Your task to perform on an android device: check data usage Image 0: 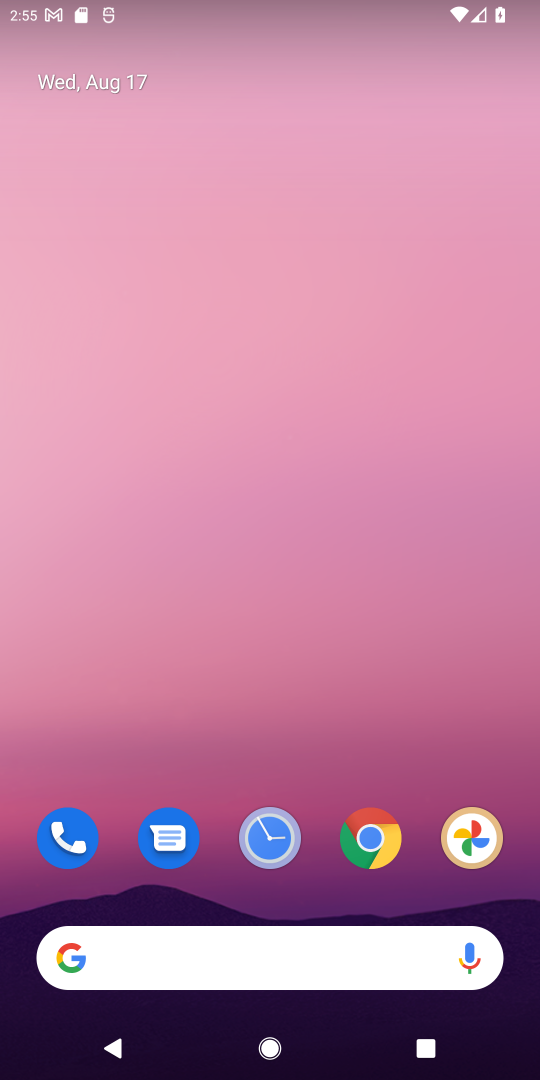
Step 0: drag from (252, 924) to (215, 648)
Your task to perform on an android device: check data usage Image 1: 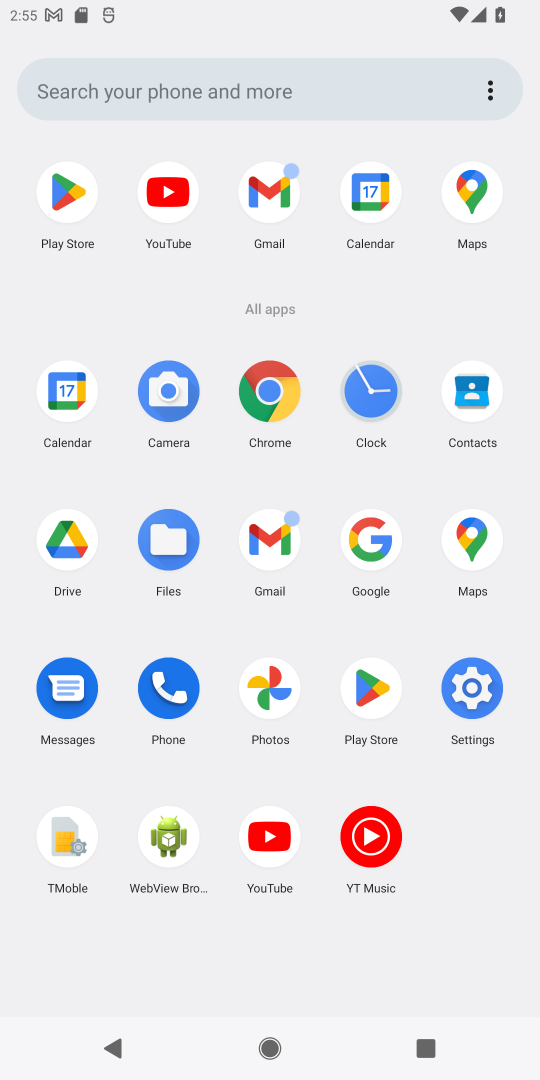
Step 1: click (466, 702)
Your task to perform on an android device: check data usage Image 2: 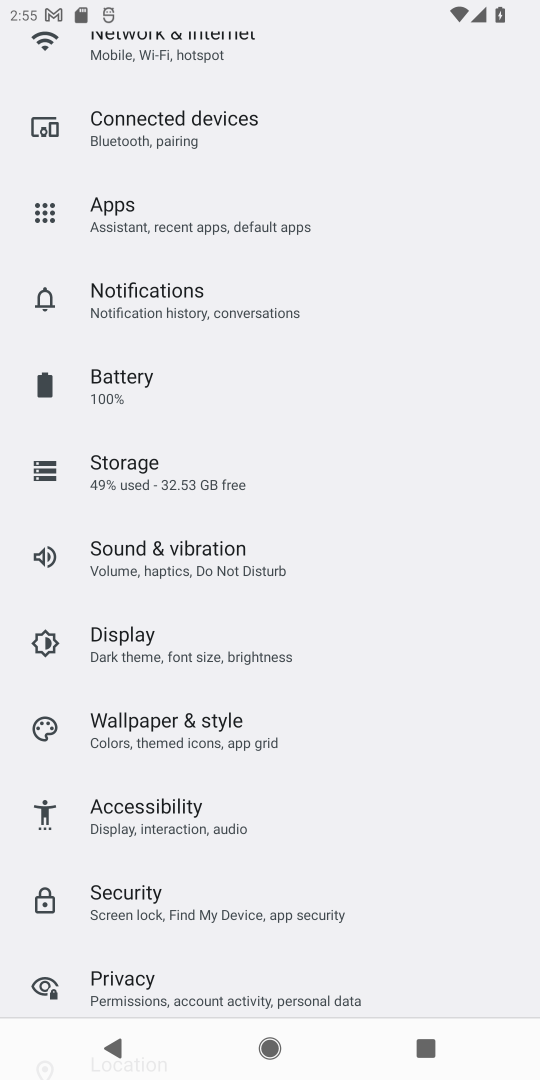
Step 2: drag from (117, 101) to (284, 518)
Your task to perform on an android device: check data usage Image 3: 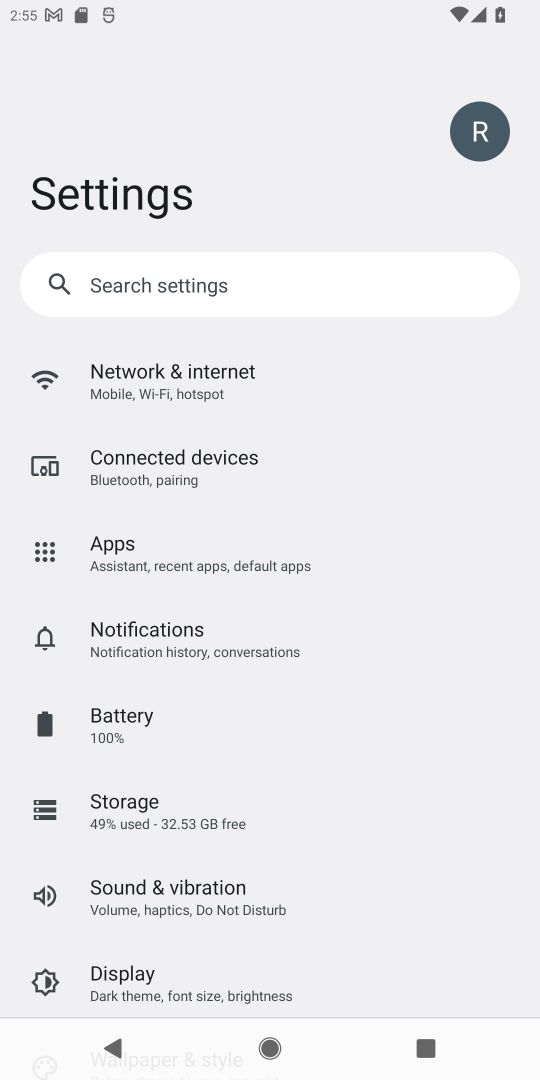
Step 3: click (153, 375)
Your task to perform on an android device: check data usage Image 4: 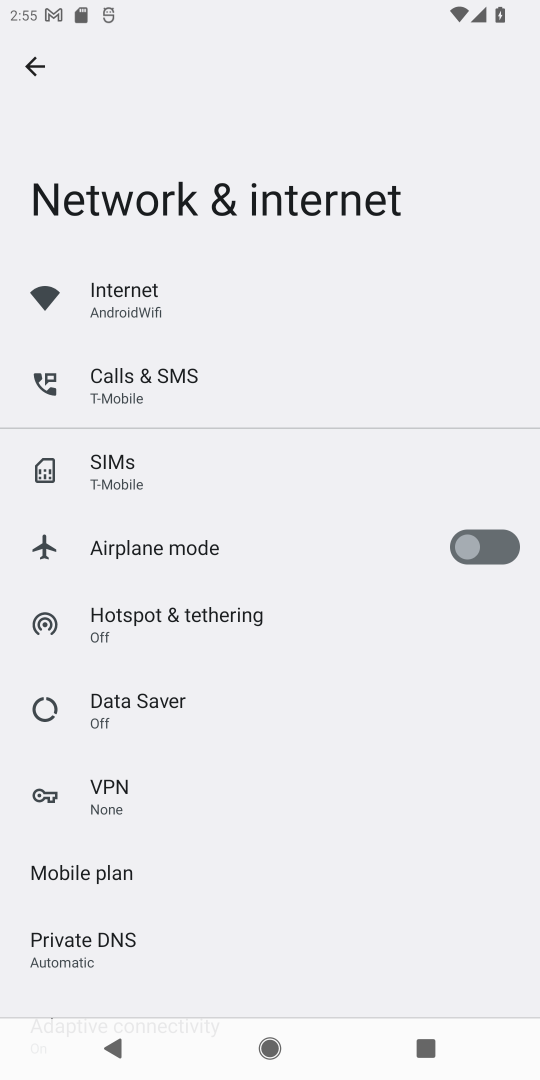
Step 4: click (112, 296)
Your task to perform on an android device: check data usage Image 5: 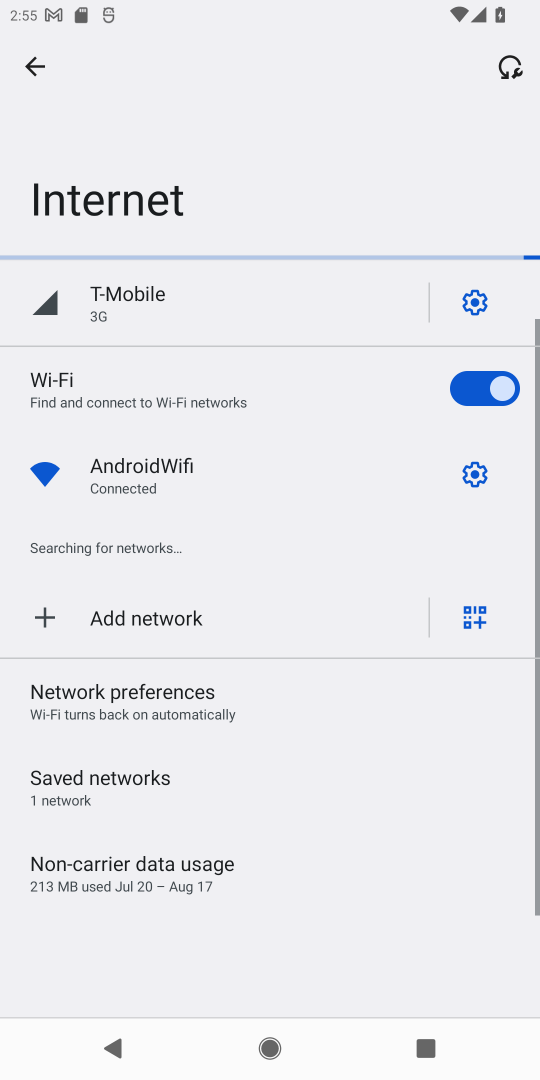
Step 5: click (118, 872)
Your task to perform on an android device: check data usage Image 6: 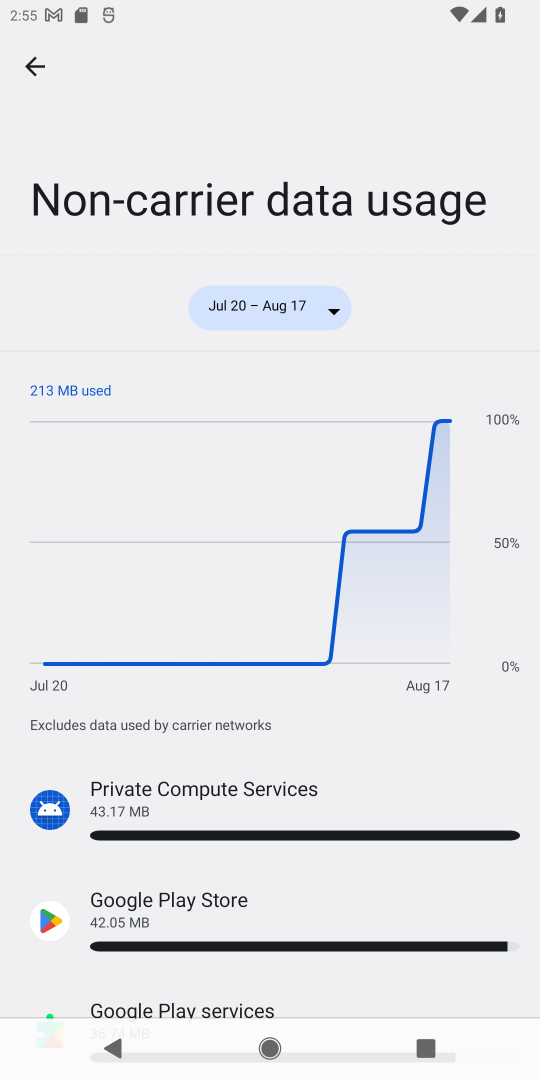
Step 6: task complete